Your task to perform on an android device: Open calendar and show me the third week of next month Image 0: 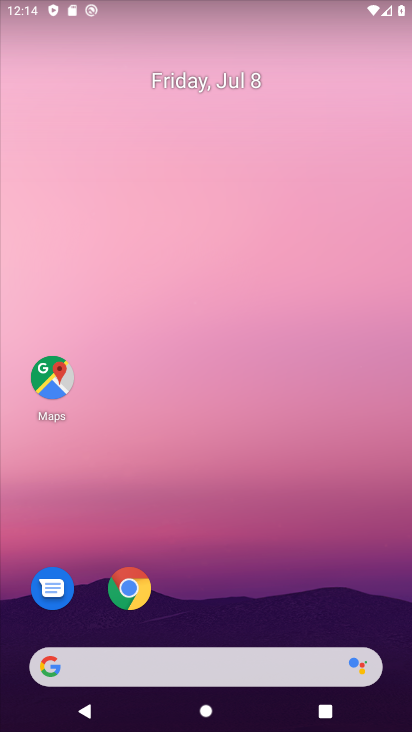
Step 0: drag from (219, 637) to (240, 5)
Your task to perform on an android device: Open calendar and show me the third week of next month Image 1: 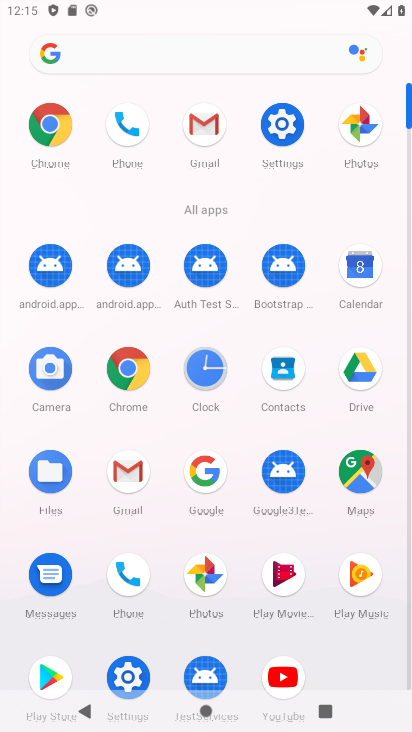
Step 1: click (359, 262)
Your task to perform on an android device: Open calendar and show me the third week of next month Image 2: 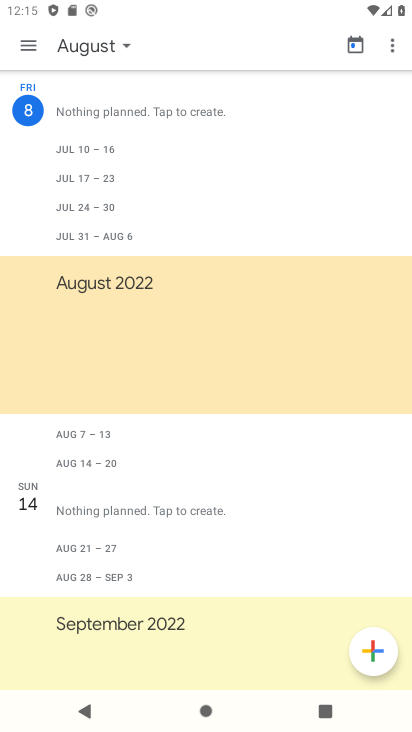
Step 2: click (124, 42)
Your task to perform on an android device: Open calendar and show me the third week of next month Image 3: 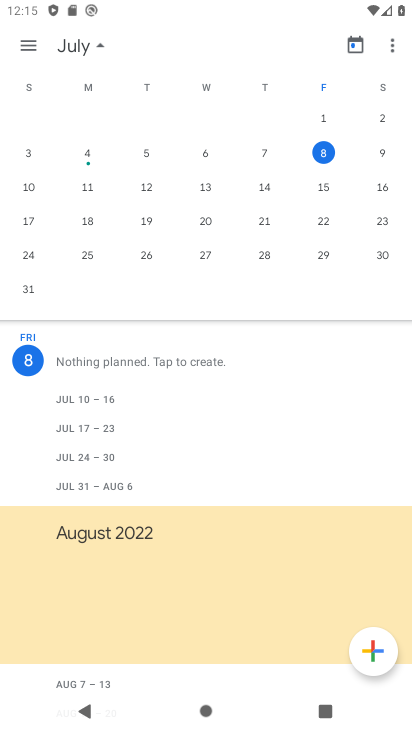
Step 3: drag from (385, 229) to (1, 186)
Your task to perform on an android device: Open calendar and show me the third week of next month Image 4: 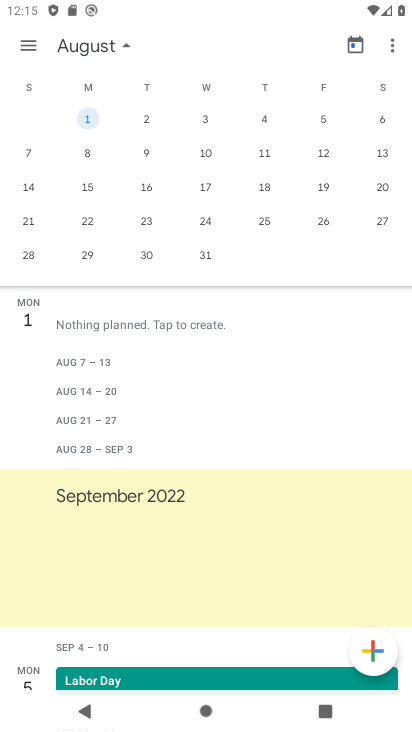
Step 4: click (30, 187)
Your task to perform on an android device: Open calendar and show me the third week of next month Image 5: 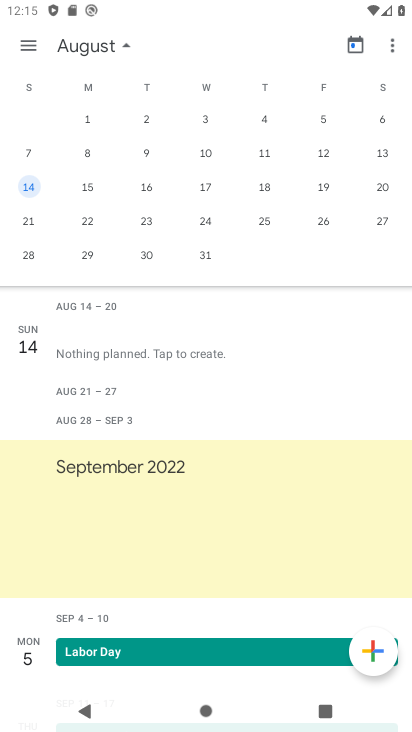
Step 5: click (28, 186)
Your task to perform on an android device: Open calendar and show me the third week of next month Image 6: 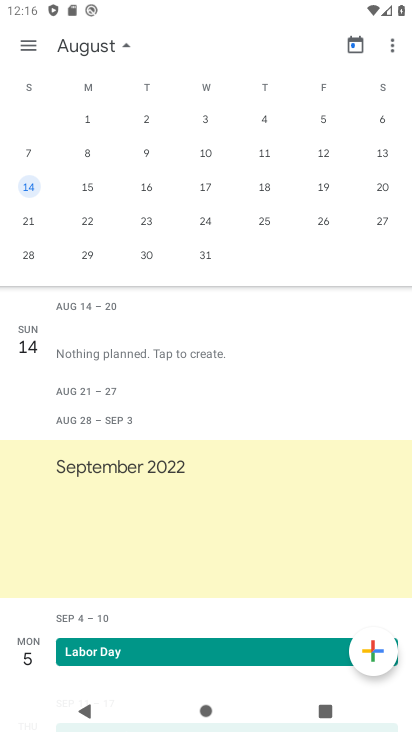
Step 6: click (27, 344)
Your task to perform on an android device: Open calendar and show me the third week of next month Image 7: 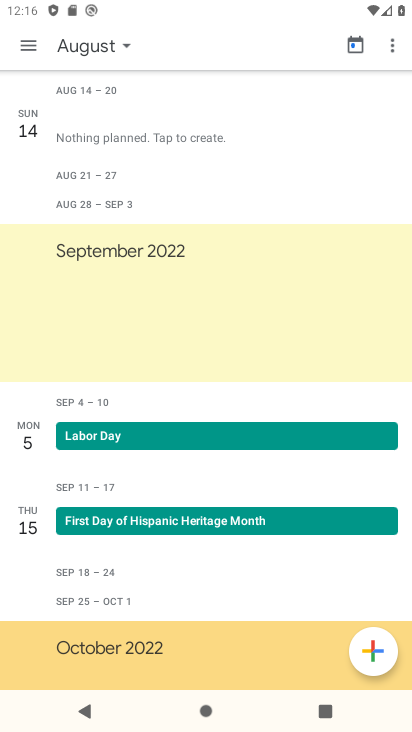
Step 7: task complete